Your task to perform on an android device: clear history in the chrome app Image 0: 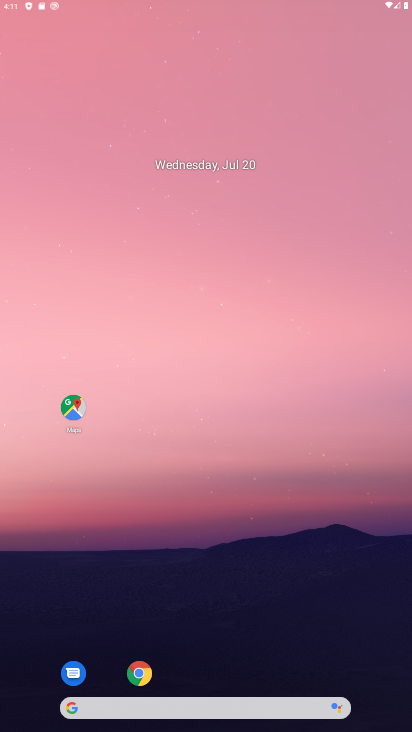
Step 0: drag from (256, 656) to (249, 158)
Your task to perform on an android device: clear history in the chrome app Image 1: 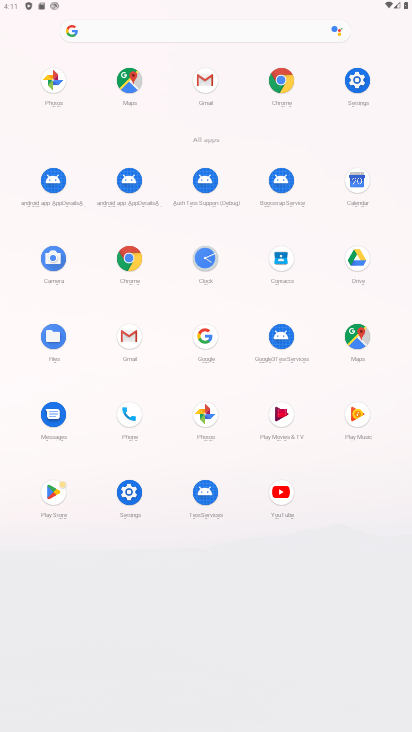
Step 1: click (136, 259)
Your task to perform on an android device: clear history in the chrome app Image 2: 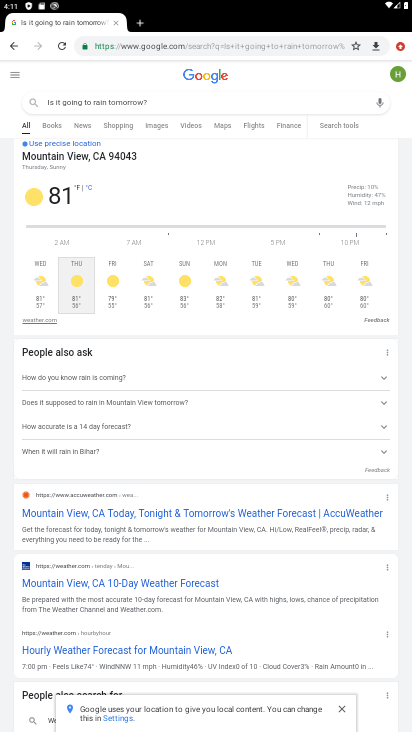
Step 2: drag from (398, 43) to (293, 171)
Your task to perform on an android device: clear history in the chrome app Image 3: 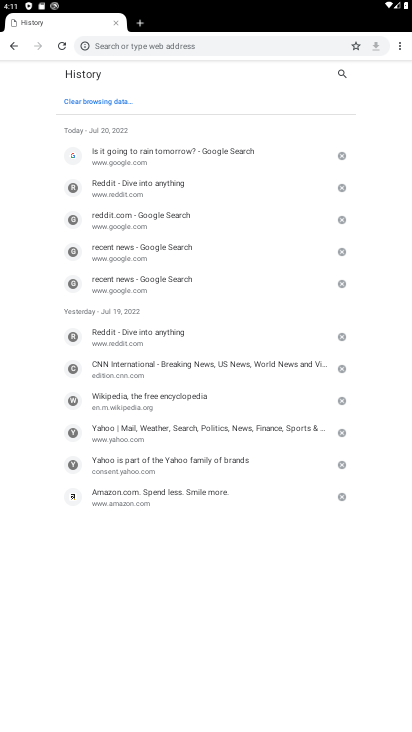
Step 3: click (76, 151)
Your task to perform on an android device: clear history in the chrome app Image 4: 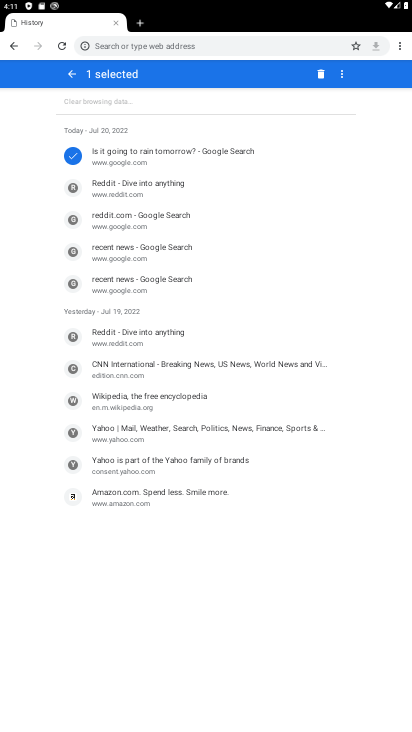
Step 4: click (80, 189)
Your task to perform on an android device: clear history in the chrome app Image 5: 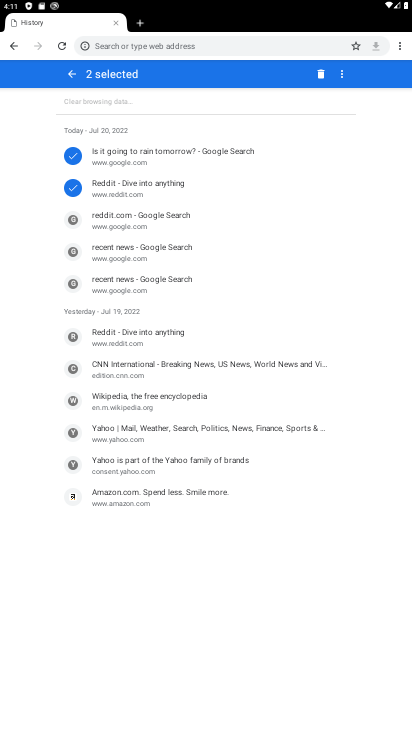
Step 5: click (76, 219)
Your task to perform on an android device: clear history in the chrome app Image 6: 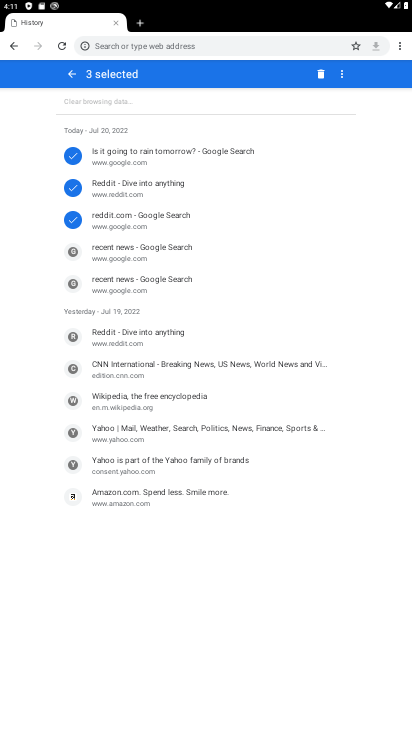
Step 6: click (78, 250)
Your task to perform on an android device: clear history in the chrome app Image 7: 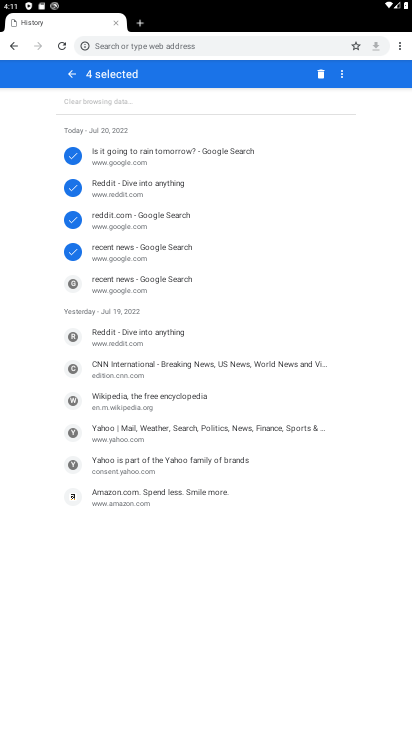
Step 7: click (78, 280)
Your task to perform on an android device: clear history in the chrome app Image 8: 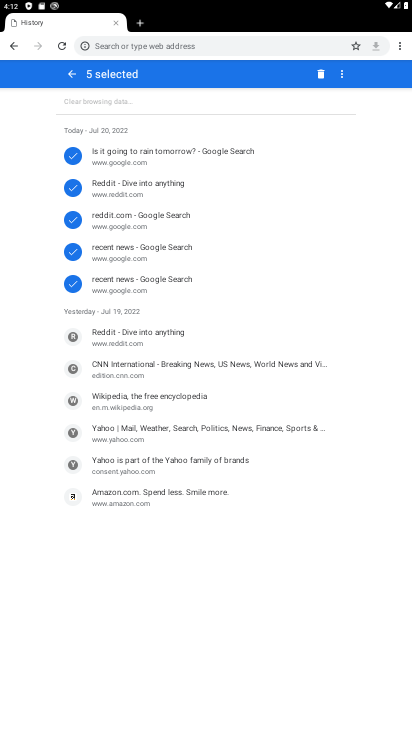
Step 8: click (72, 343)
Your task to perform on an android device: clear history in the chrome app Image 9: 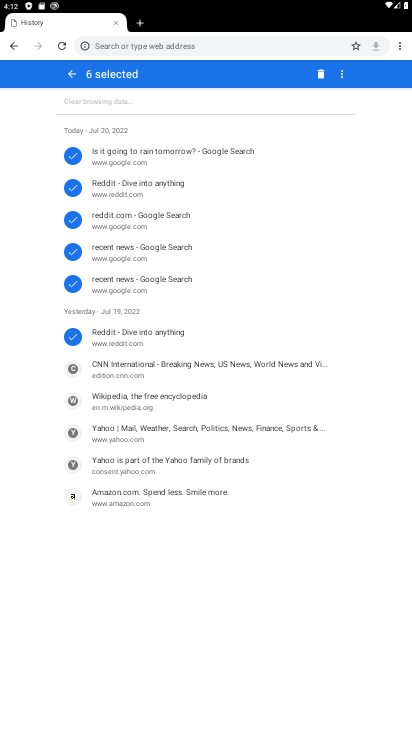
Step 9: click (72, 369)
Your task to perform on an android device: clear history in the chrome app Image 10: 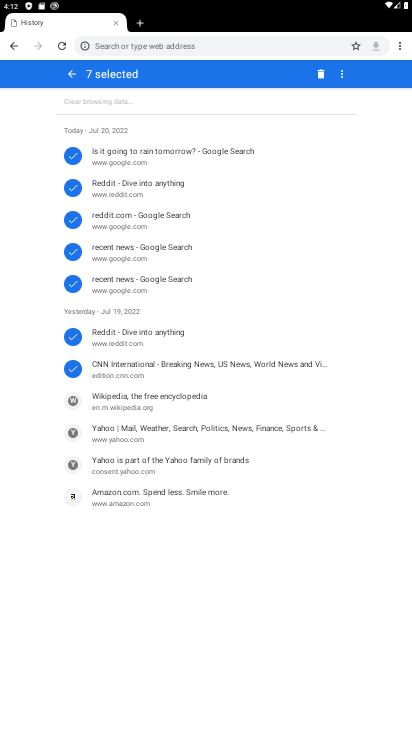
Step 10: click (72, 395)
Your task to perform on an android device: clear history in the chrome app Image 11: 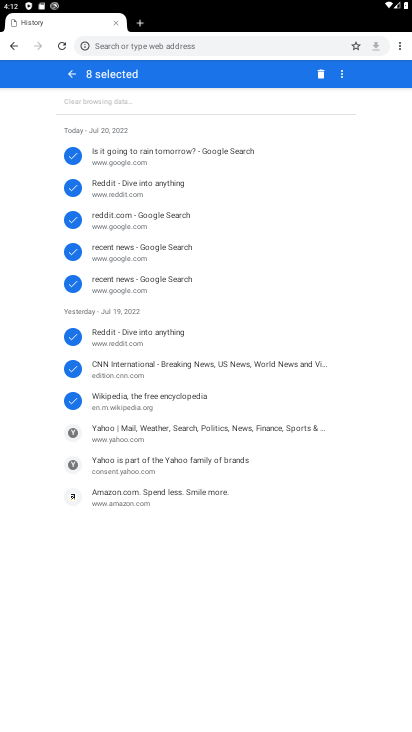
Step 11: click (70, 424)
Your task to perform on an android device: clear history in the chrome app Image 12: 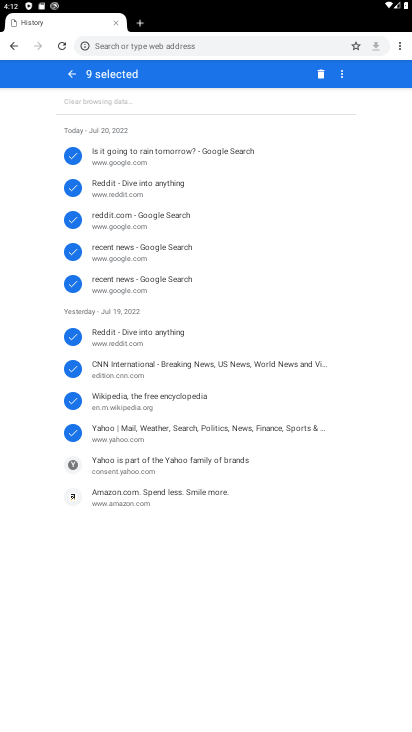
Step 12: click (70, 457)
Your task to perform on an android device: clear history in the chrome app Image 13: 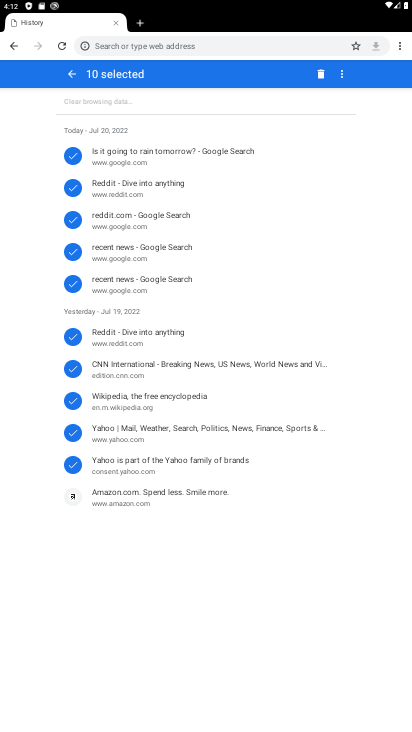
Step 13: click (72, 490)
Your task to perform on an android device: clear history in the chrome app Image 14: 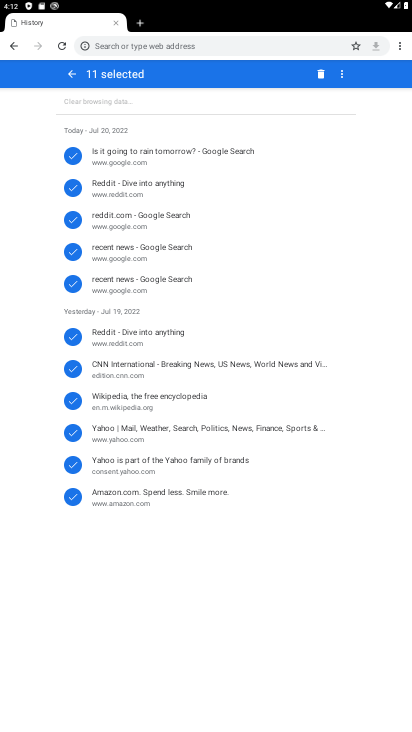
Step 14: click (319, 75)
Your task to perform on an android device: clear history in the chrome app Image 15: 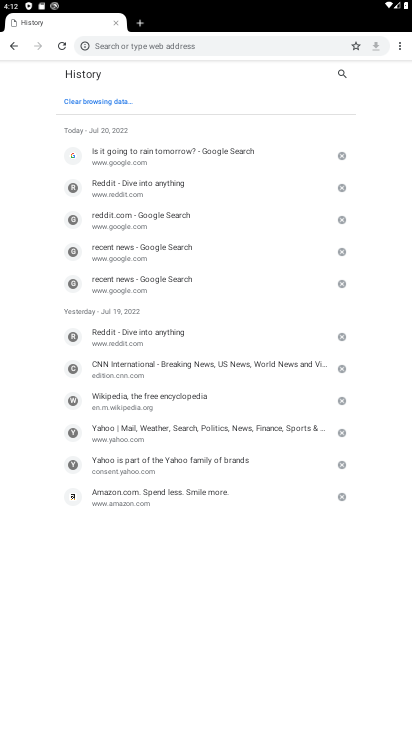
Step 15: click (65, 146)
Your task to perform on an android device: clear history in the chrome app Image 16: 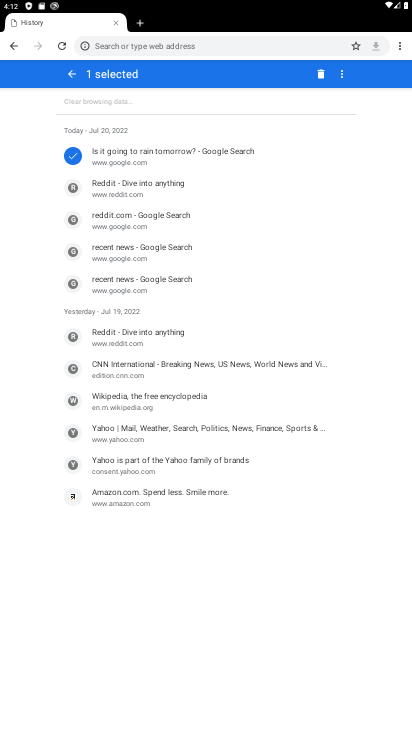
Step 16: click (75, 494)
Your task to perform on an android device: clear history in the chrome app Image 17: 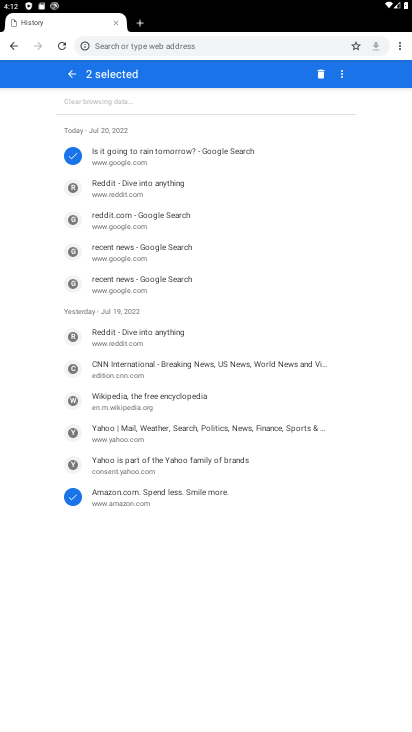
Step 17: click (75, 460)
Your task to perform on an android device: clear history in the chrome app Image 18: 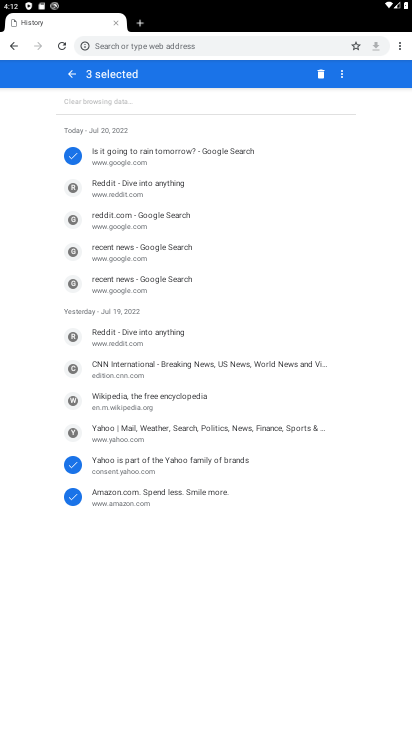
Step 18: click (75, 422)
Your task to perform on an android device: clear history in the chrome app Image 19: 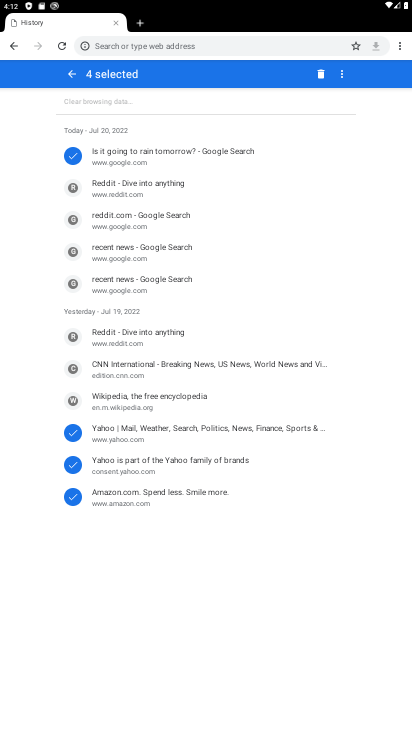
Step 19: click (75, 392)
Your task to perform on an android device: clear history in the chrome app Image 20: 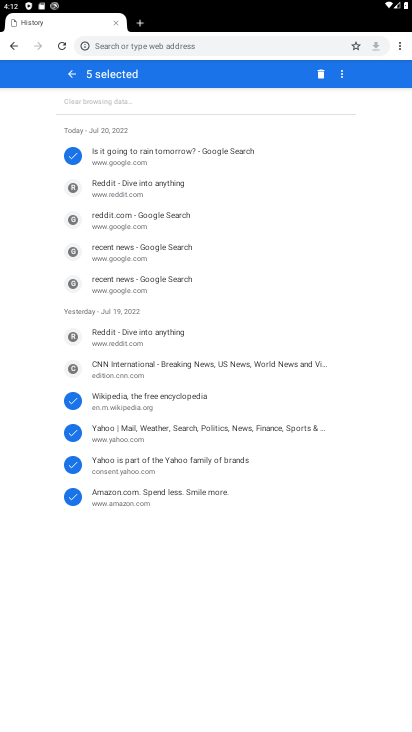
Step 20: click (71, 362)
Your task to perform on an android device: clear history in the chrome app Image 21: 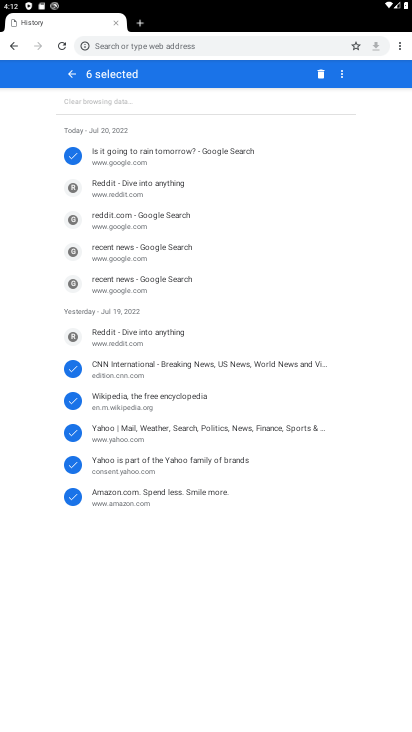
Step 21: click (71, 338)
Your task to perform on an android device: clear history in the chrome app Image 22: 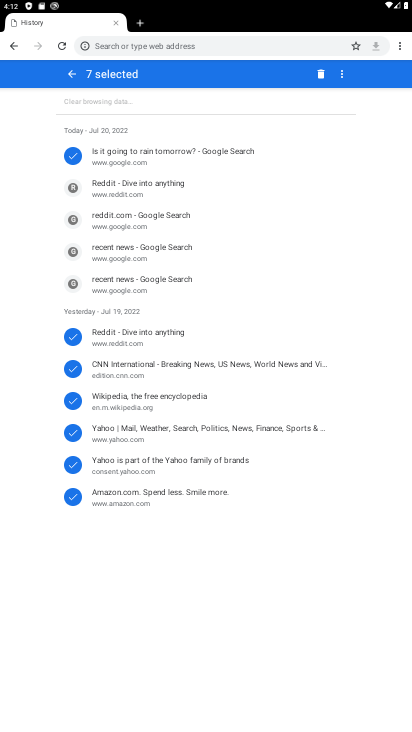
Step 22: click (73, 279)
Your task to perform on an android device: clear history in the chrome app Image 23: 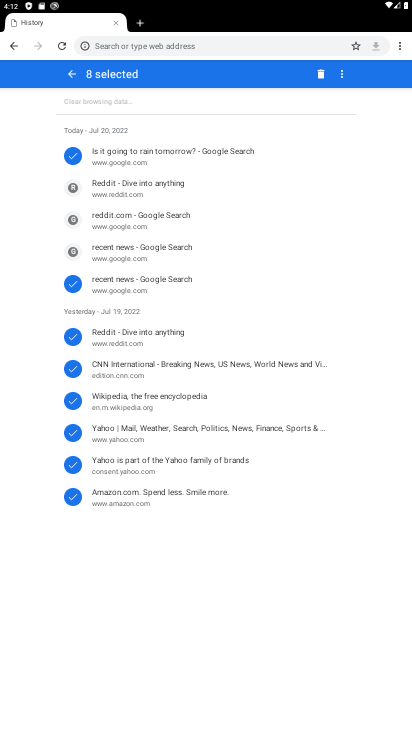
Step 23: click (71, 248)
Your task to perform on an android device: clear history in the chrome app Image 24: 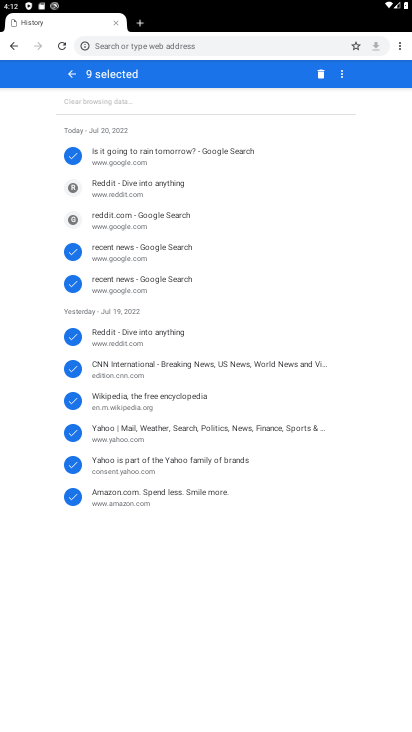
Step 24: click (71, 220)
Your task to perform on an android device: clear history in the chrome app Image 25: 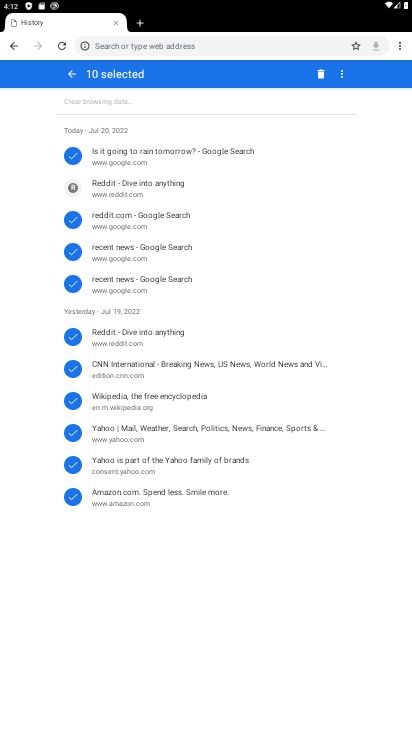
Step 25: click (66, 179)
Your task to perform on an android device: clear history in the chrome app Image 26: 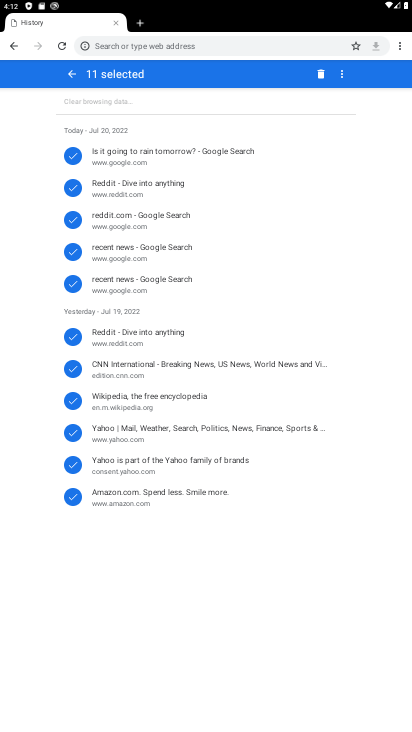
Step 26: click (317, 77)
Your task to perform on an android device: clear history in the chrome app Image 27: 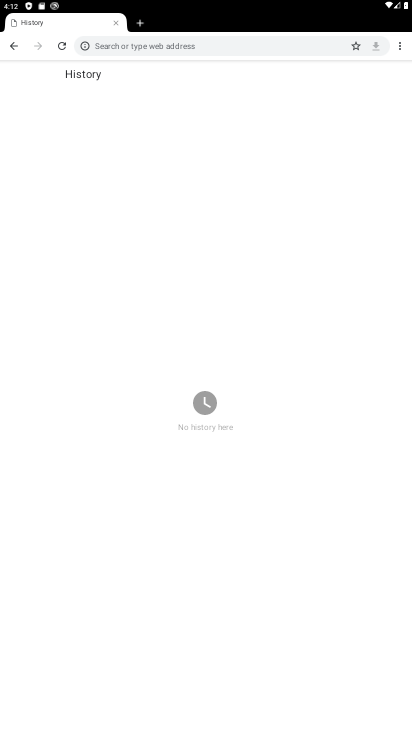
Step 27: task complete